Your task to perform on an android device: open app "HBO Max: Stream TV & Movies" Image 0: 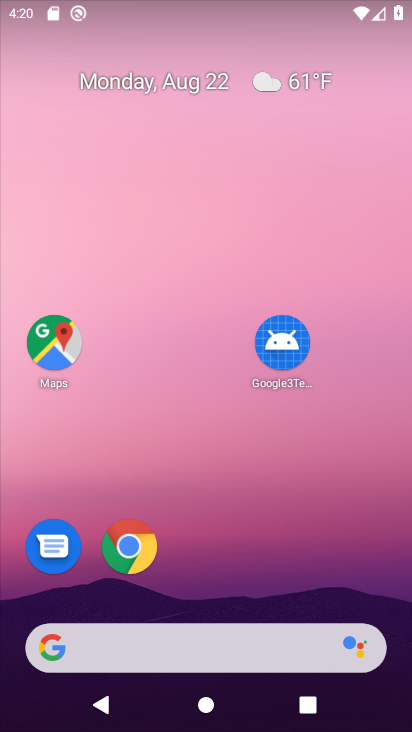
Step 0: drag from (391, 612) to (350, 136)
Your task to perform on an android device: open app "HBO Max: Stream TV & Movies" Image 1: 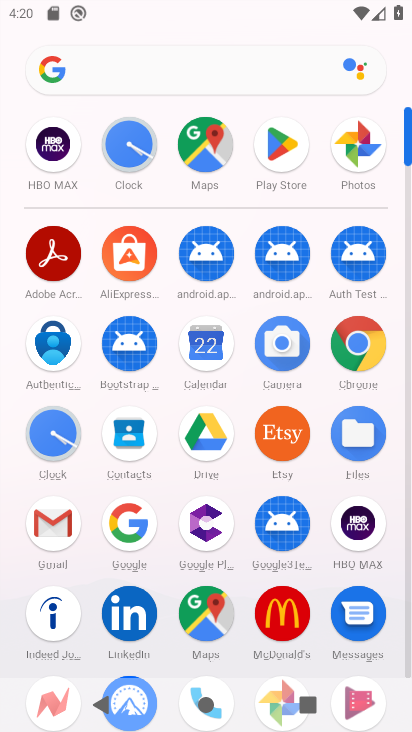
Step 1: drag from (165, 576) to (173, 356)
Your task to perform on an android device: open app "HBO Max: Stream TV & Movies" Image 2: 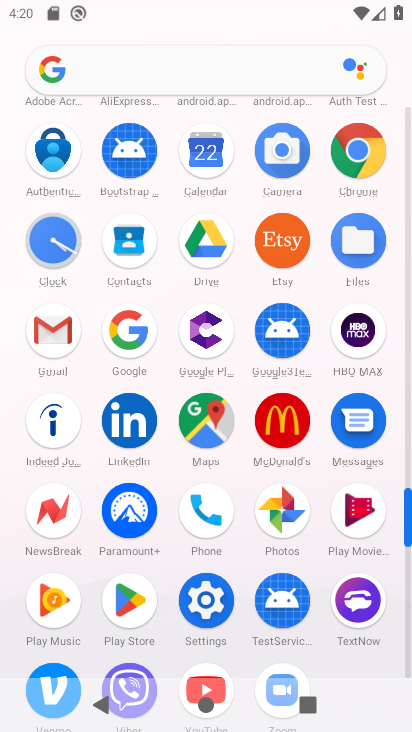
Step 2: click (131, 597)
Your task to perform on an android device: open app "HBO Max: Stream TV & Movies" Image 3: 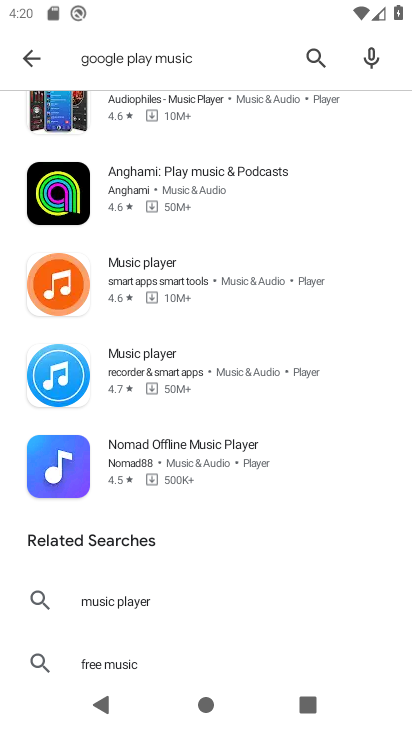
Step 3: click (310, 51)
Your task to perform on an android device: open app "HBO Max: Stream TV & Movies" Image 4: 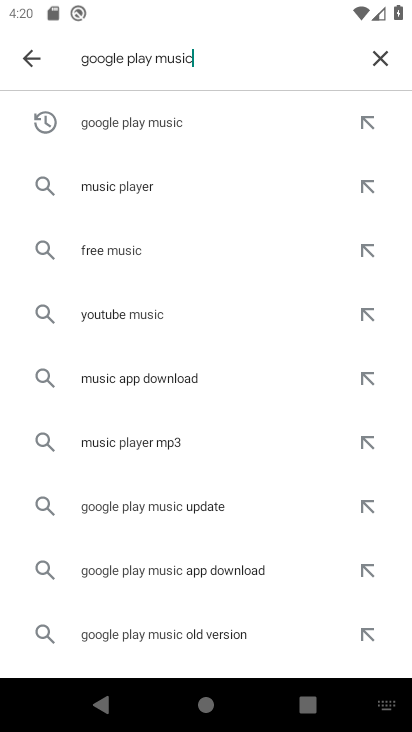
Step 4: click (377, 53)
Your task to perform on an android device: open app "HBO Max: Stream TV & Movies" Image 5: 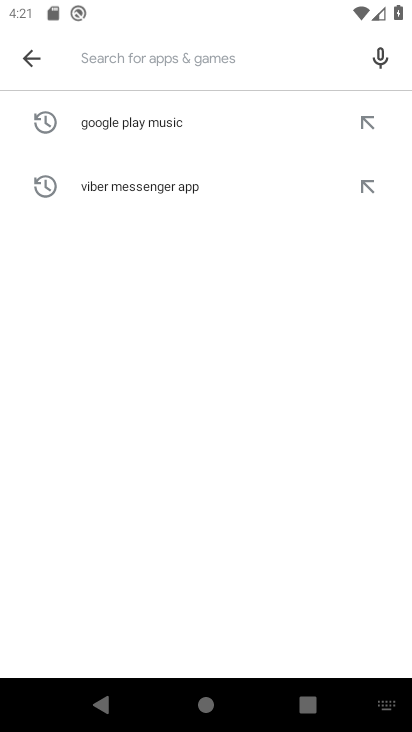
Step 5: type "HBO Max: Stream TV & Movies"
Your task to perform on an android device: open app "HBO Max: Stream TV & Movies" Image 6: 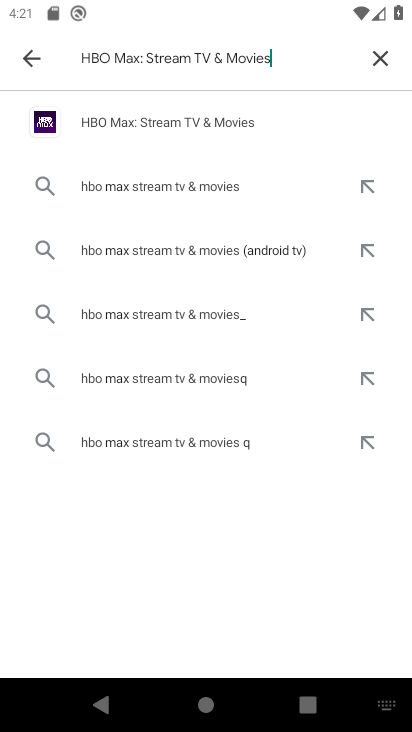
Step 6: click (136, 122)
Your task to perform on an android device: open app "HBO Max: Stream TV & Movies" Image 7: 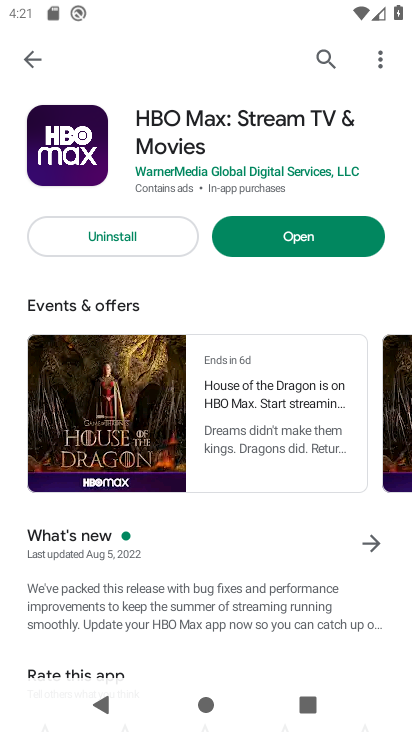
Step 7: click (300, 232)
Your task to perform on an android device: open app "HBO Max: Stream TV & Movies" Image 8: 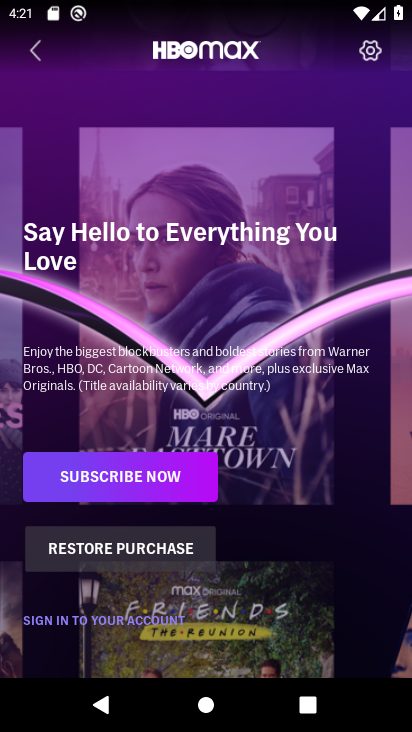
Step 8: task complete